Your task to perform on an android device: Open calendar and show me the second week of next month Image 0: 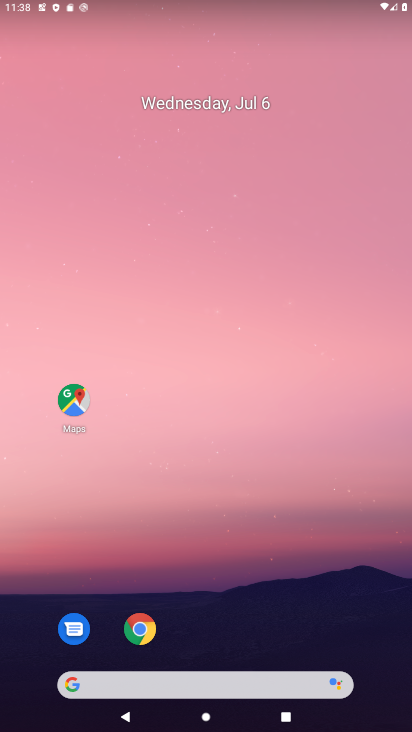
Step 0: drag from (229, 510) to (214, 165)
Your task to perform on an android device: Open calendar and show me the second week of next month Image 1: 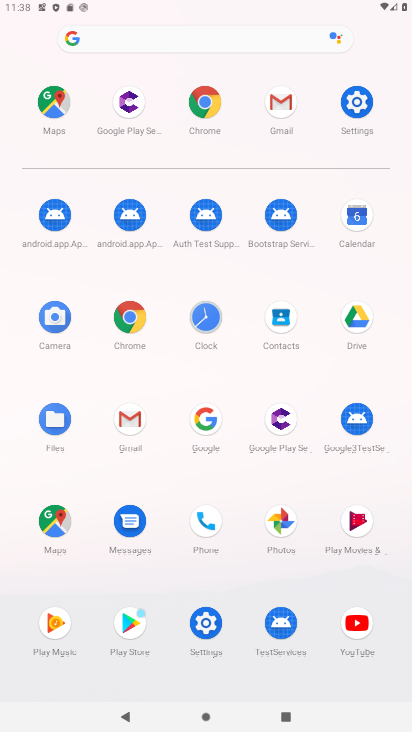
Step 1: click (367, 231)
Your task to perform on an android device: Open calendar and show me the second week of next month Image 2: 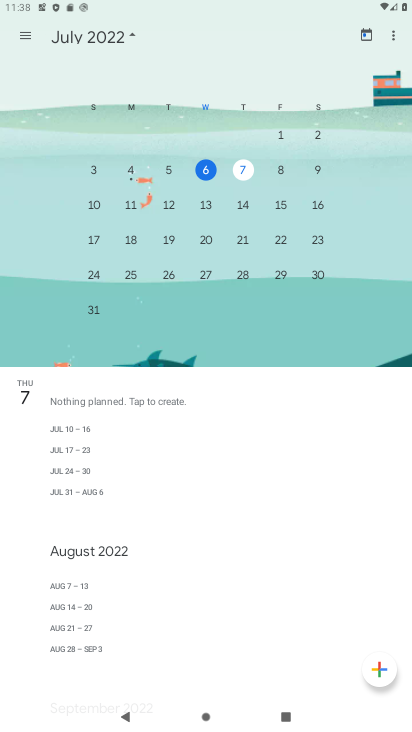
Step 2: drag from (327, 232) to (10, 241)
Your task to perform on an android device: Open calendar and show me the second week of next month Image 3: 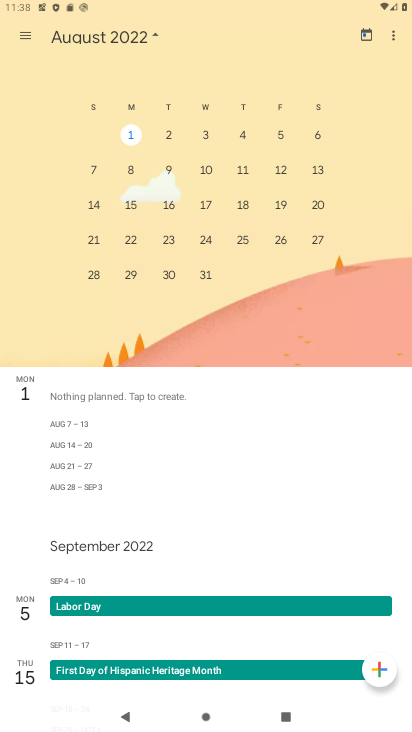
Step 3: click (134, 158)
Your task to perform on an android device: Open calendar and show me the second week of next month Image 4: 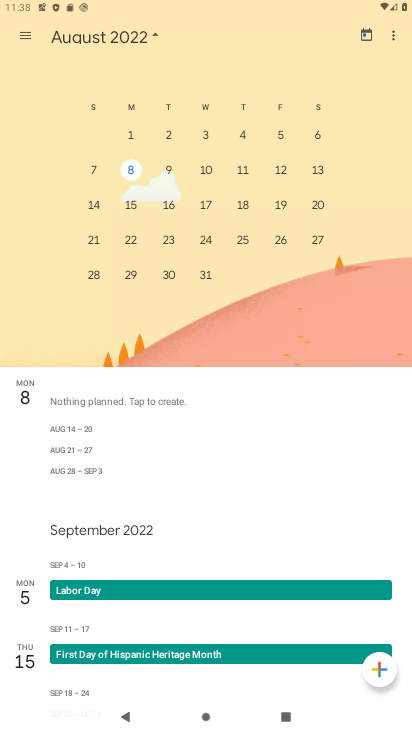
Step 4: click (101, 168)
Your task to perform on an android device: Open calendar and show me the second week of next month Image 5: 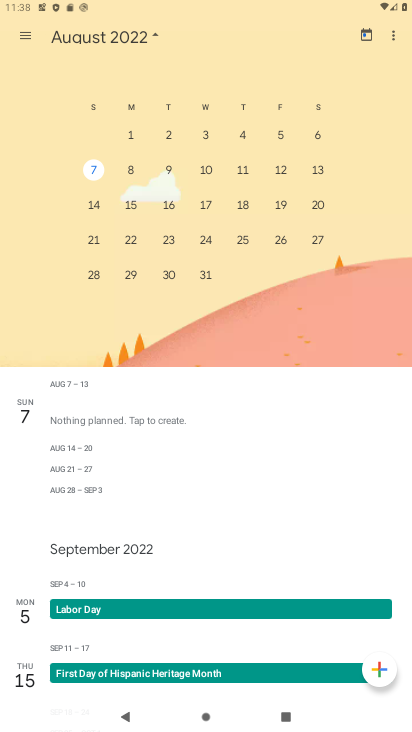
Step 5: task complete